Your task to perform on an android device: Go to Amazon Image 0: 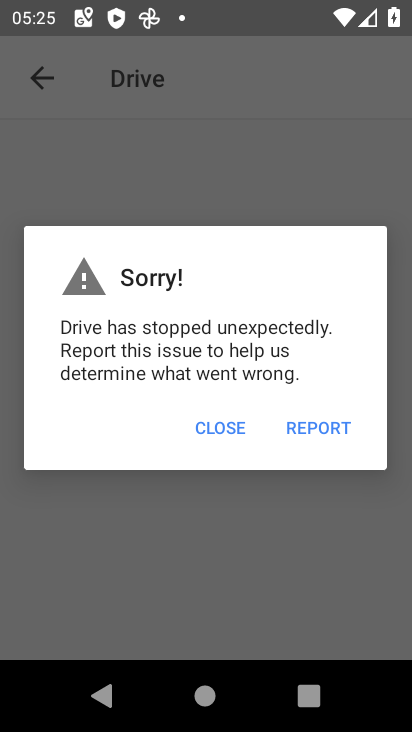
Step 0: press home button
Your task to perform on an android device: Go to Amazon Image 1: 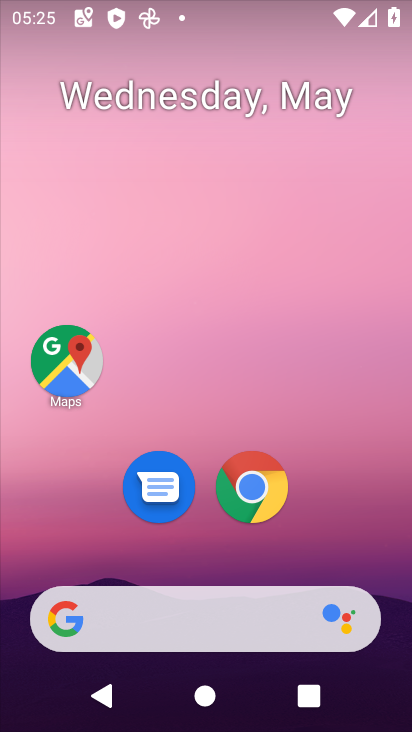
Step 1: click (267, 507)
Your task to perform on an android device: Go to Amazon Image 2: 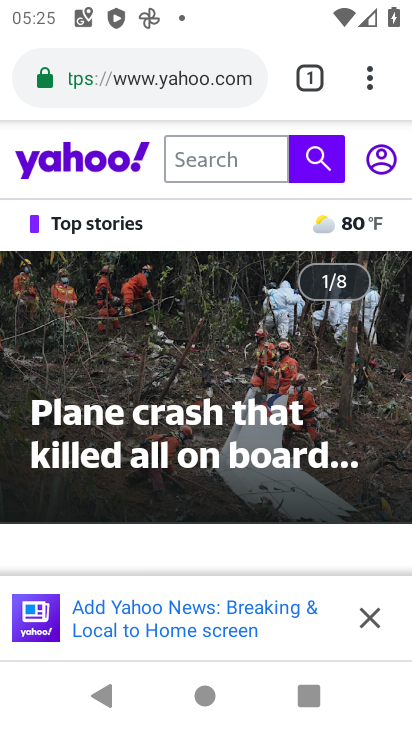
Step 2: click (222, 97)
Your task to perform on an android device: Go to Amazon Image 3: 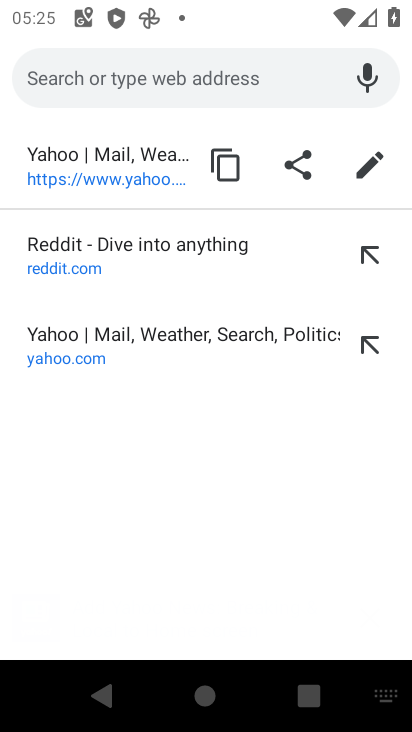
Step 3: type "amazon"
Your task to perform on an android device: Go to Amazon Image 4: 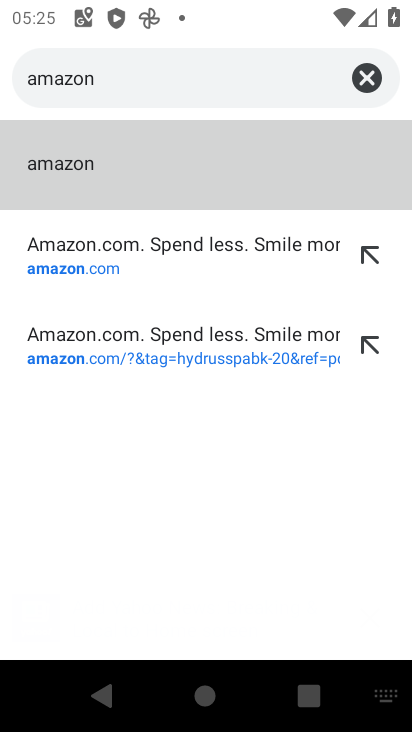
Step 4: click (125, 264)
Your task to perform on an android device: Go to Amazon Image 5: 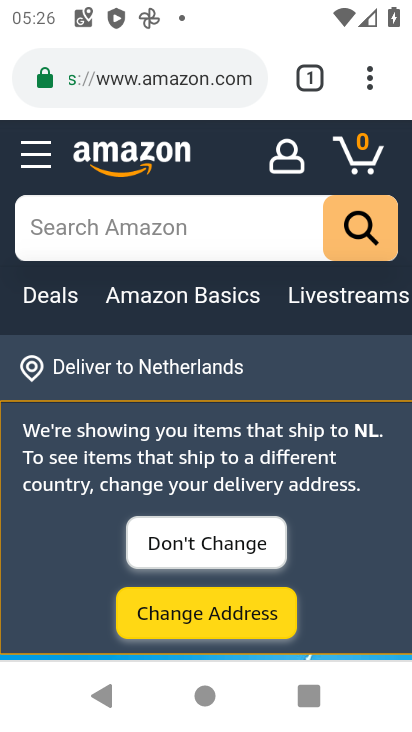
Step 5: task complete